Your task to perform on an android device: turn on location history Image 0: 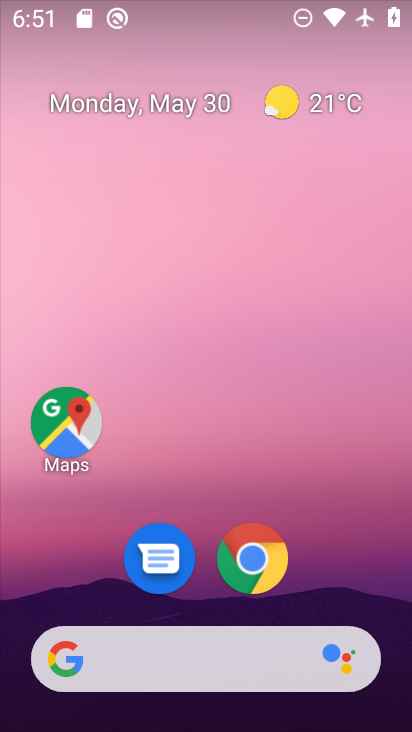
Step 0: click (50, 433)
Your task to perform on an android device: turn on location history Image 1: 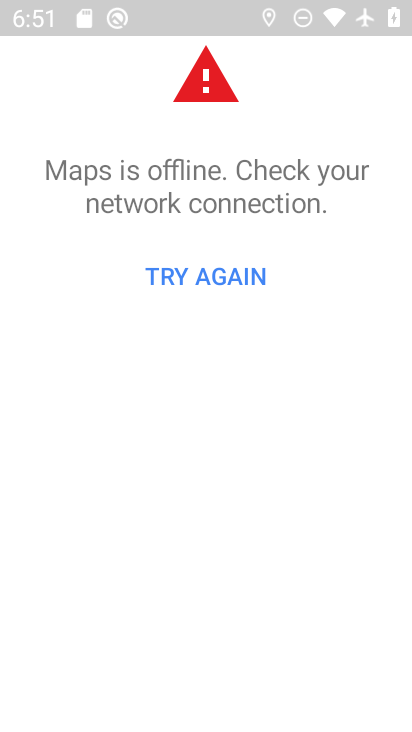
Step 1: click (201, 274)
Your task to perform on an android device: turn on location history Image 2: 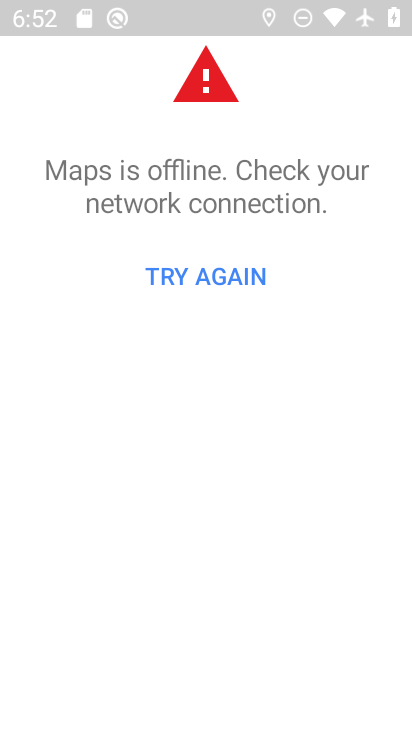
Step 2: task complete